Your task to perform on an android device: turn on bluetooth scan Image 0: 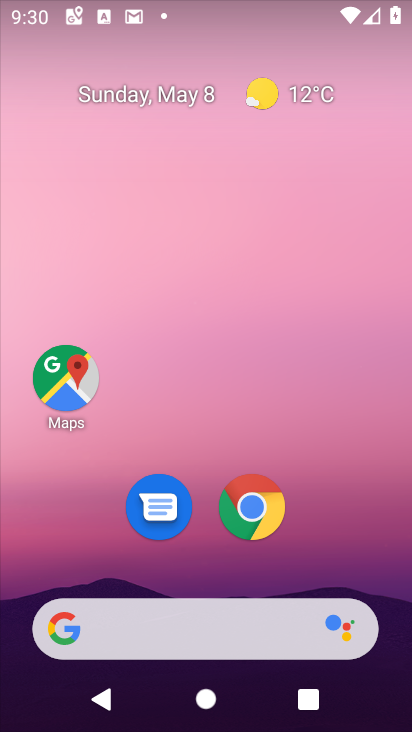
Step 0: drag from (144, 489) to (144, 136)
Your task to perform on an android device: turn on bluetooth scan Image 1: 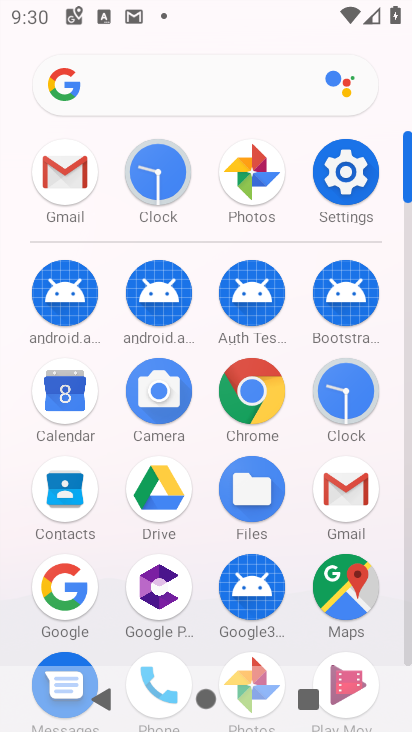
Step 1: click (349, 167)
Your task to perform on an android device: turn on bluetooth scan Image 2: 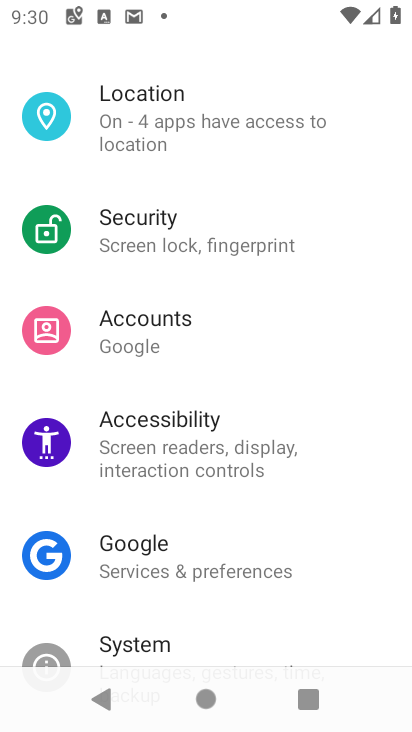
Step 2: click (222, 130)
Your task to perform on an android device: turn on bluetooth scan Image 3: 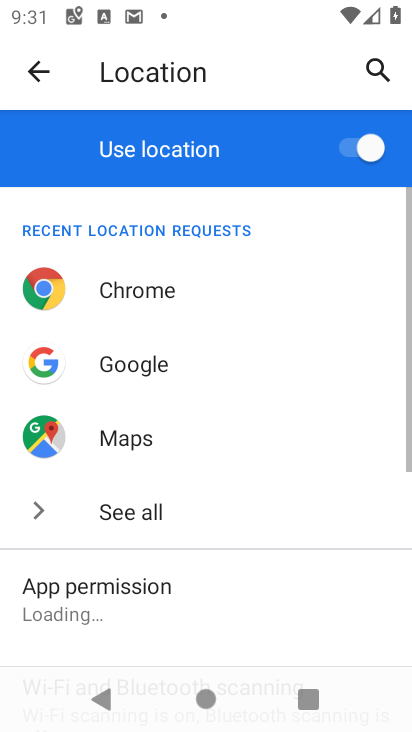
Step 3: click (112, 592)
Your task to perform on an android device: turn on bluetooth scan Image 4: 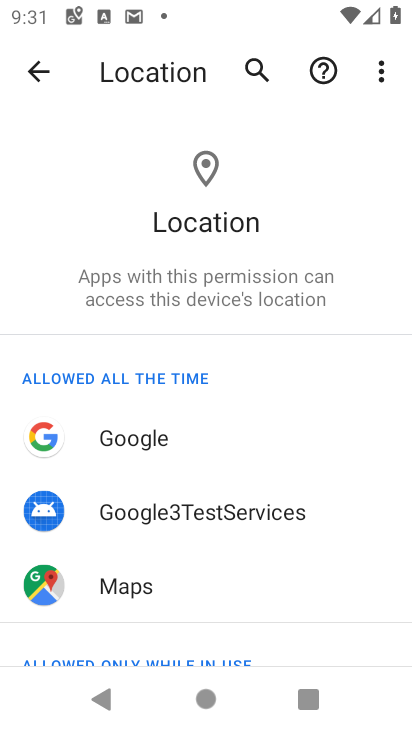
Step 4: click (23, 71)
Your task to perform on an android device: turn on bluetooth scan Image 5: 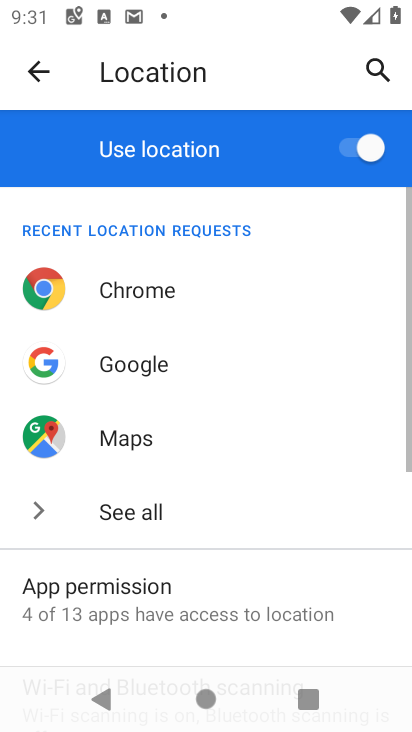
Step 5: drag from (259, 513) to (199, 57)
Your task to perform on an android device: turn on bluetooth scan Image 6: 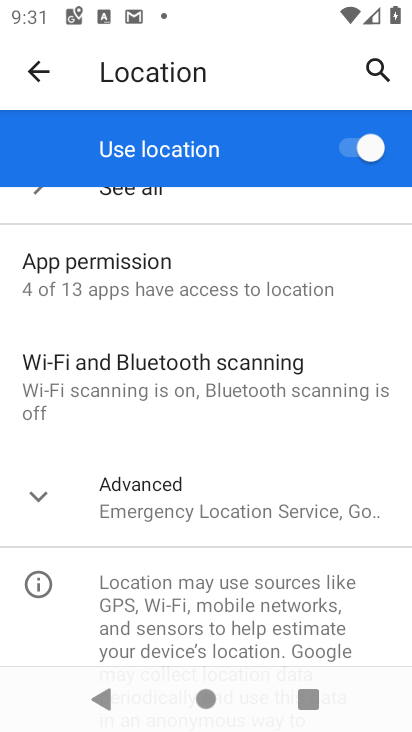
Step 6: click (129, 391)
Your task to perform on an android device: turn on bluetooth scan Image 7: 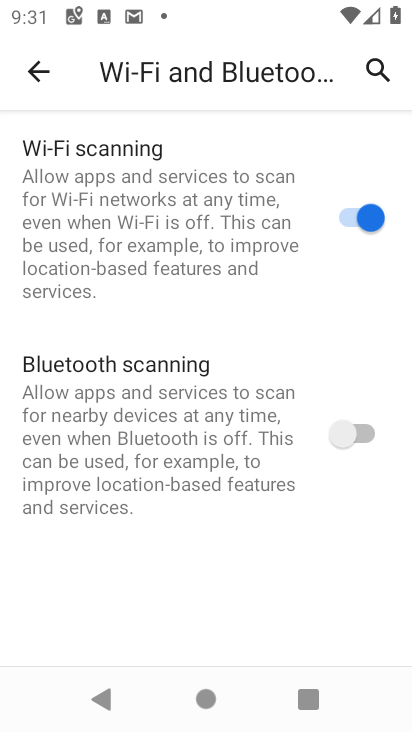
Step 7: click (362, 424)
Your task to perform on an android device: turn on bluetooth scan Image 8: 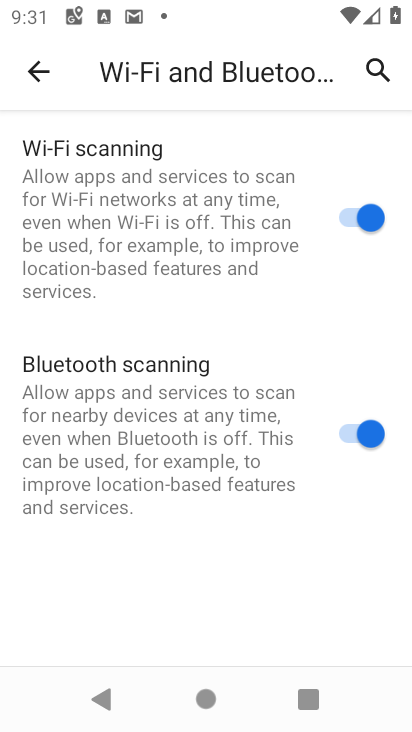
Step 8: task complete